Your task to perform on an android device: toggle data saver in the chrome app Image 0: 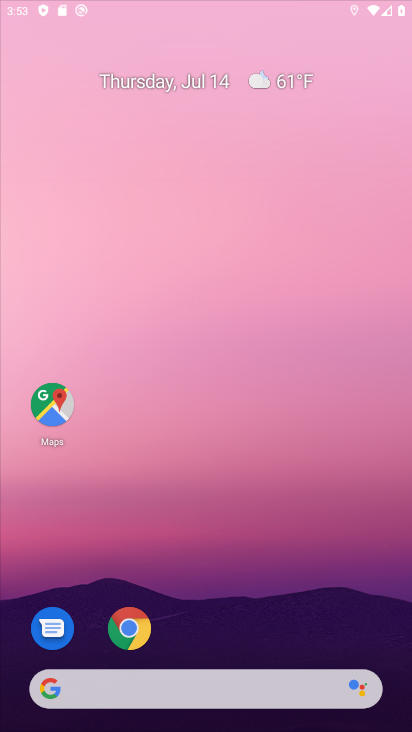
Step 0: click (230, 187)
Your task to perform on an android device: toggle data saver in the chrome app Image 1: 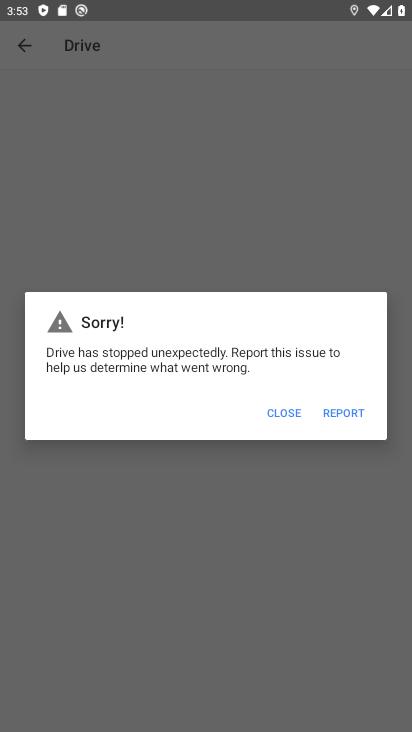
Step 1: press home button
Your task to perform on an android device: toggle data saver in the chrome app Image 2: 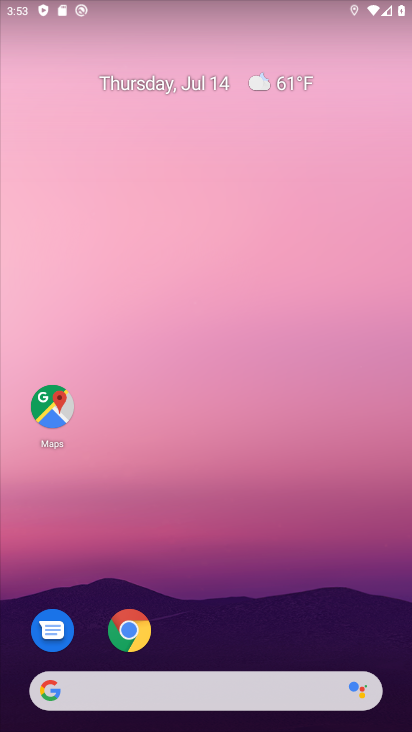
Step 2: drag from (275, 622) to (180, 119)
Your task to perform on an android device: toggle data saver in the chrome app Image 3: 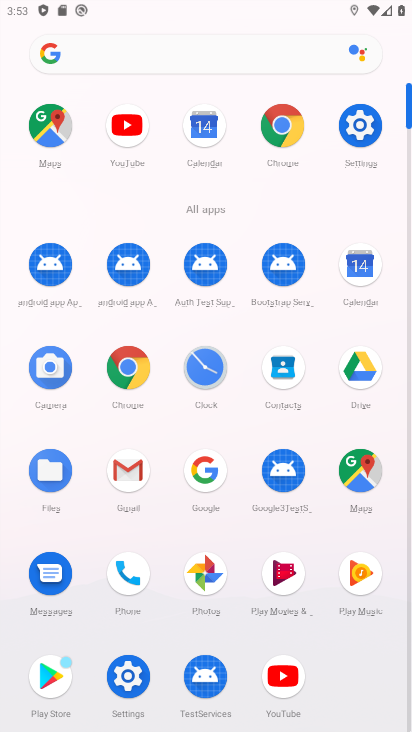
Step 3: click (285, 132)
Your task to perform on an android device: toggle data saver in the chrome app Image 4: 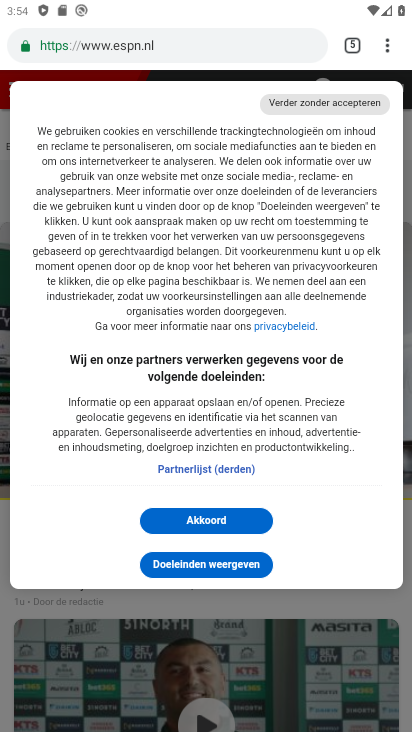
Step 4: click (393, 51)
Your task to perform on an android device: toggle data saver in the chrome app Image 5: 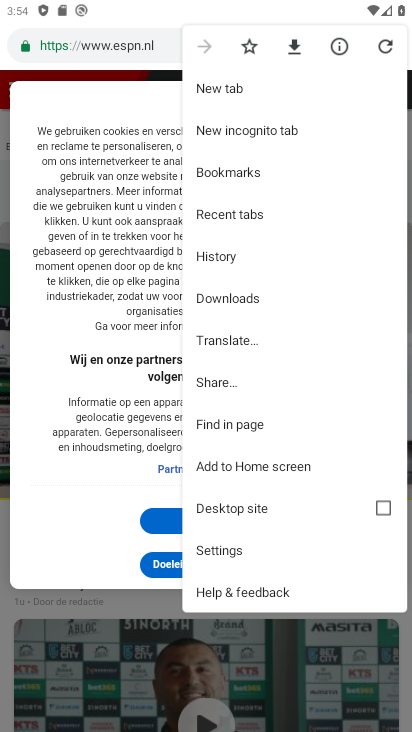
Step 5: click (249, 557)
Your task to perform on an android device: toggle data saver in the chrome app Image 6: 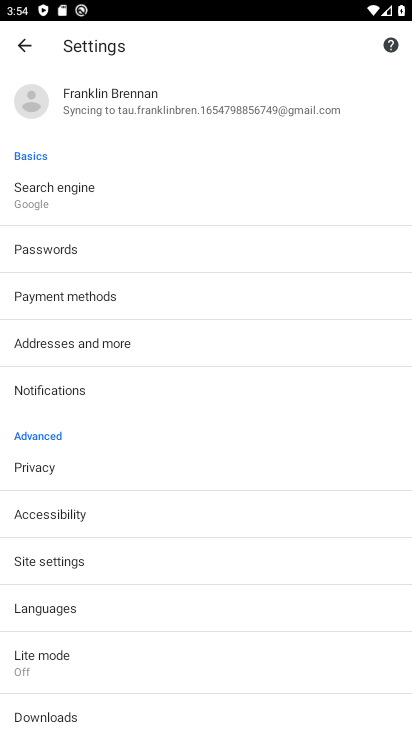
Step 6: click (65, 661)
Your task to perform on an android device: toggle data saver in the chrome app Image 7: 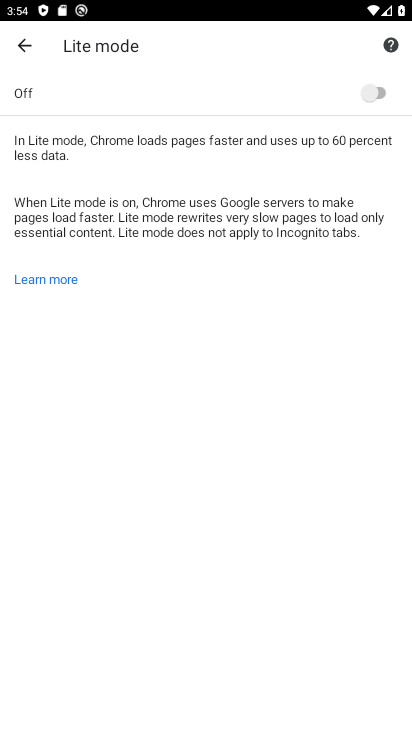
Step 7: click (376, 92)
Your task to perform on an android device: toggle data saver in the chrome app Image 8: 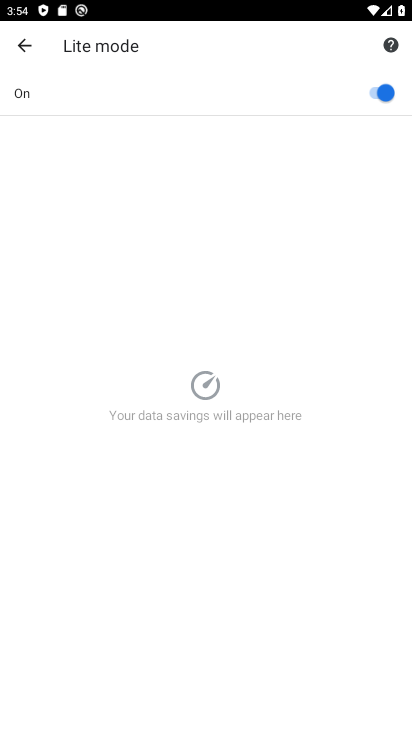
Step 8: task complete